Your task to perform on an android device: toggle airplane mode Image 0: 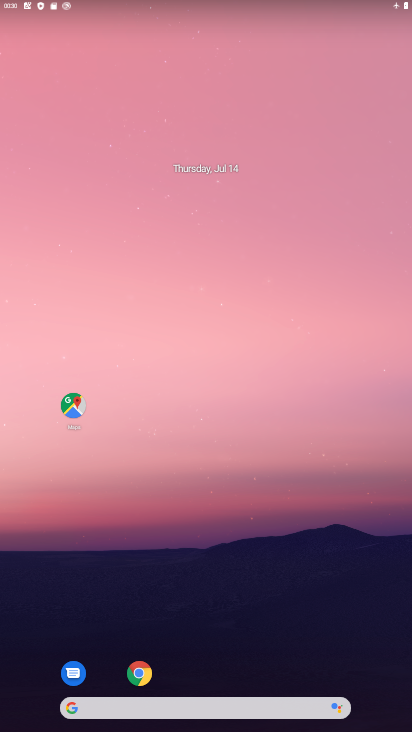
Step 0: drag from (209, 656) to (240, 313)
Your task to perform on an android device: toggle airplane mode Image 1: 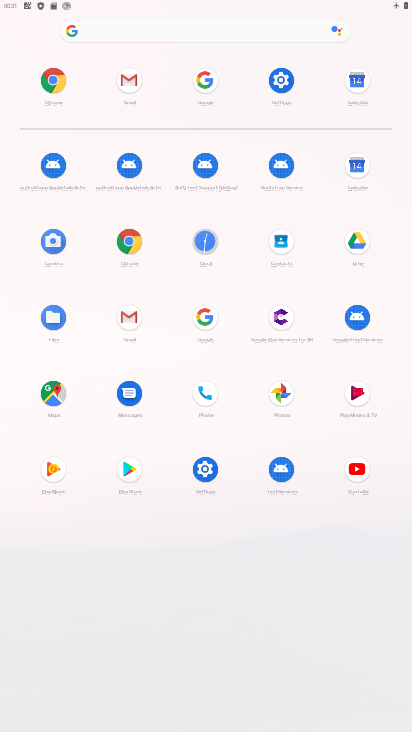
Step 1: click (287, 100)
Your task to perform on an android device: toggle airplane mode Image 2: 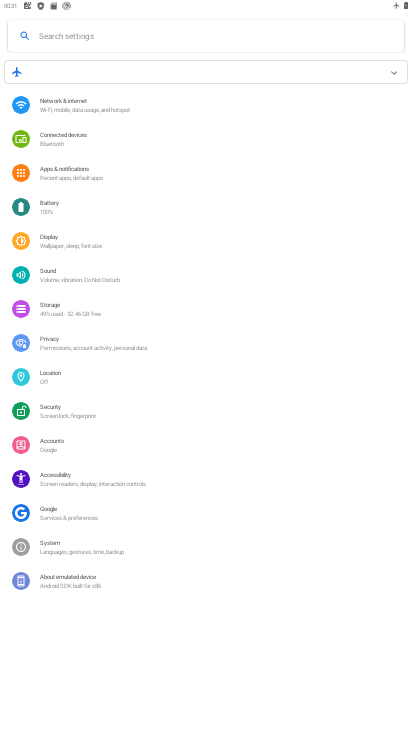
Step 2: click (82, 111)
Your task to perform on an android device: toggle airplane mode Image 3: 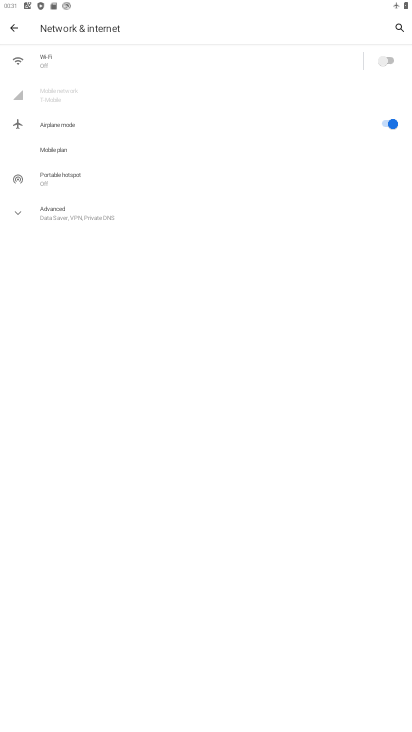
Step 3: click (382, 120)
Your task to perform on an android device: toggle airplane mode Image 4: 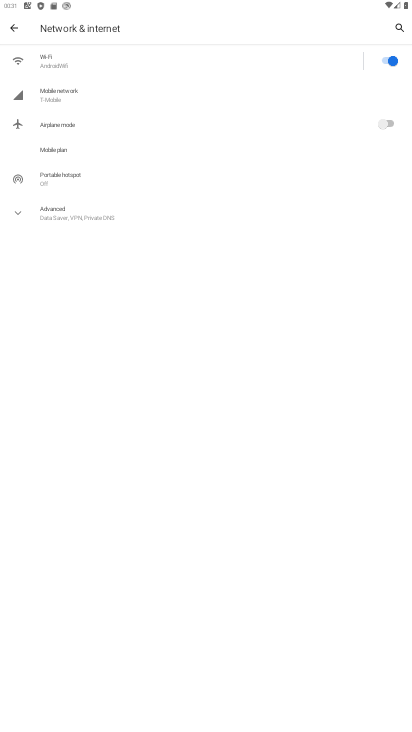
Step 4: task complete